Your task to perform on an android device: Open Google Chrome Image 0: 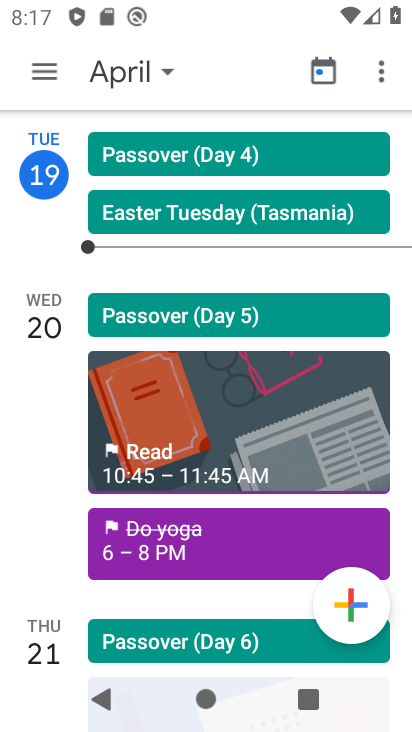
Step 0: press back button
Your task to perform on an android device: Open Google Chrome Image 1: 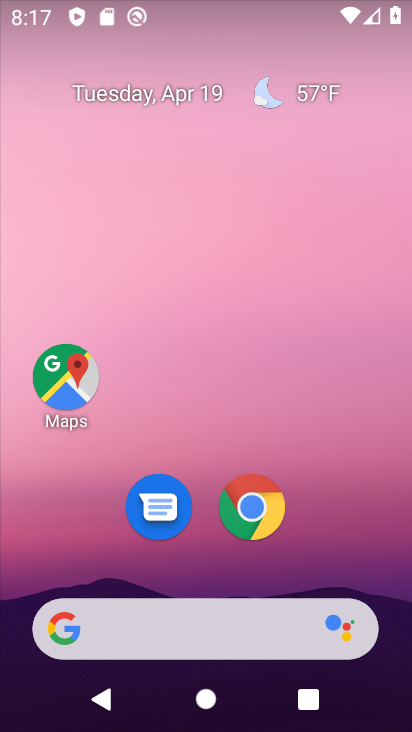
Step 1: click (278, 505)
Your task to perform on an android device: Open Google Chrome Image 2: 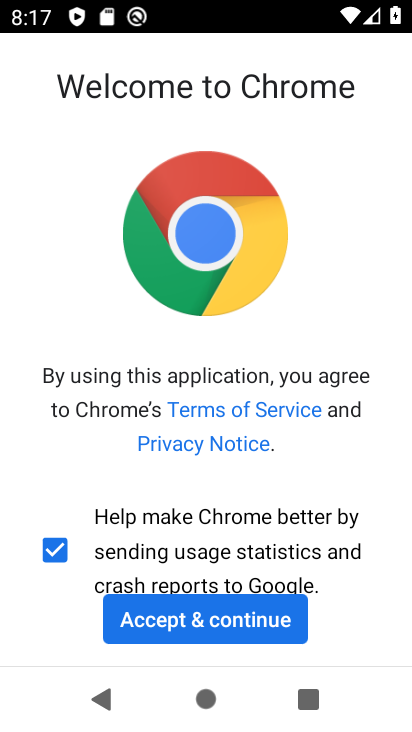
Step 2: click (235, 612)
Your task to perform on an android device: Open Google Chrome Image 3: 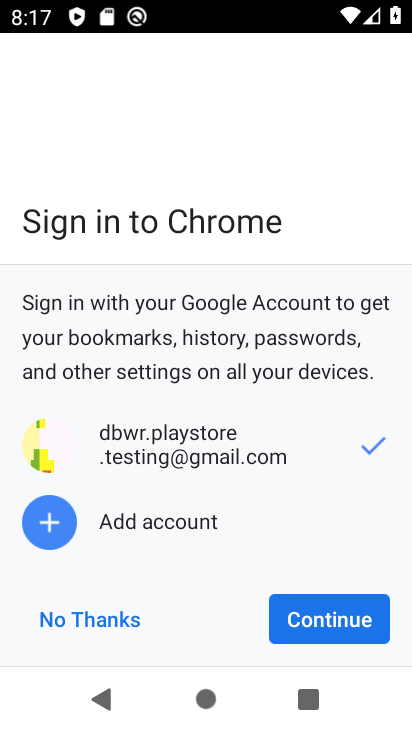
Step 3: click (283, 618)
Your task to perform on an android device: Open Google Chrome Image 4: 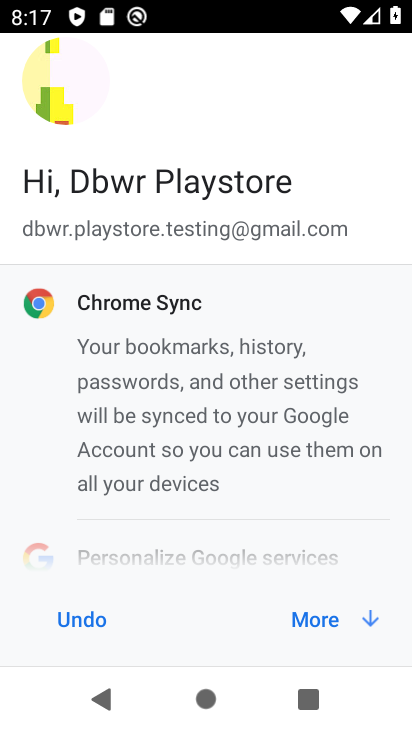
Step 4: click (303, 618)
Your task to perform on an android device: Open Google Chrome Image 5: 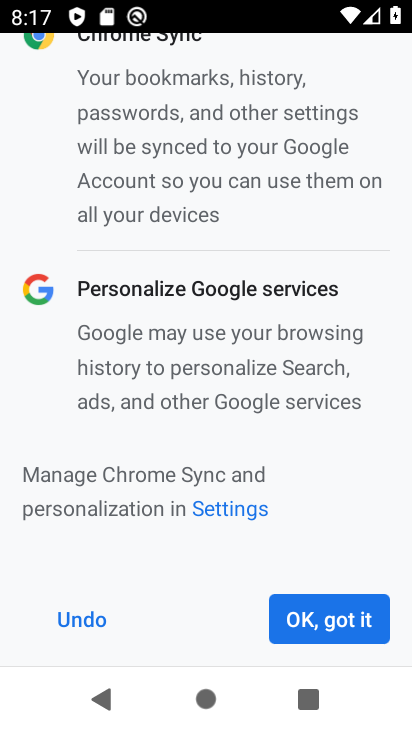
Step 5: click (303, 618)
Your task to perform on an android device: Open Google Chrome Image 6: 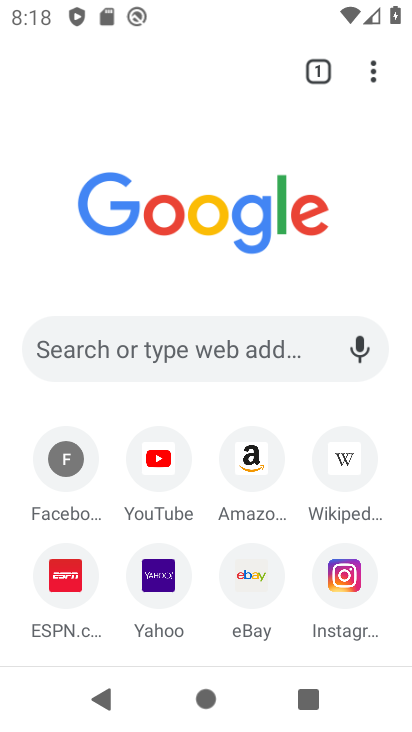
Step 6: task complete